Your task to perform on an android device: turn on bluetooth scan Image 0: 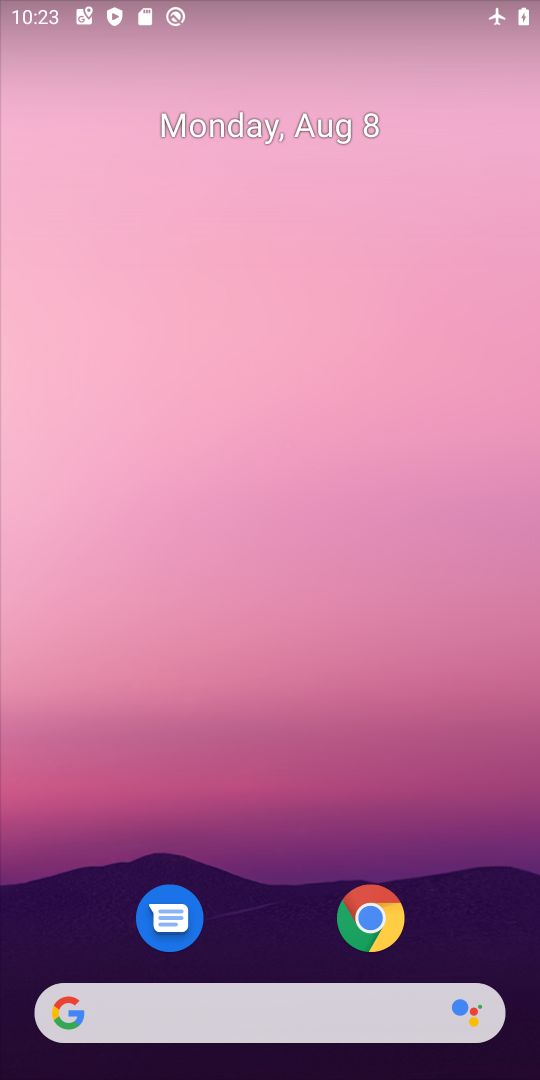
Step 0: drag from (272, 975) to (231, 251)
Your task to perform on an android device: turn on bluetooth scan Image 1: 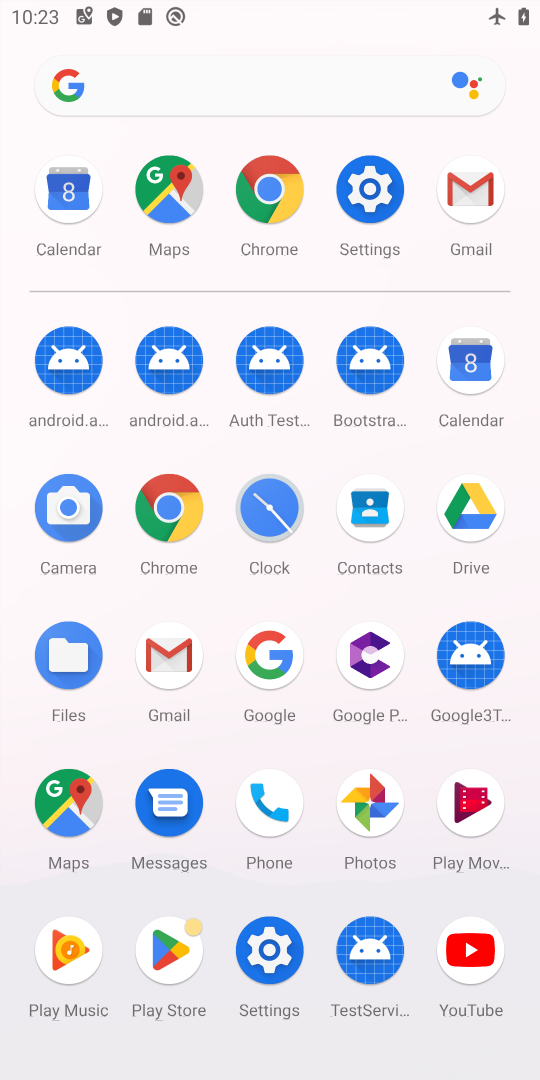
Step 1: click (386, 175)
Your task to perform on an android device: turn on bluetooth scan Image 2: 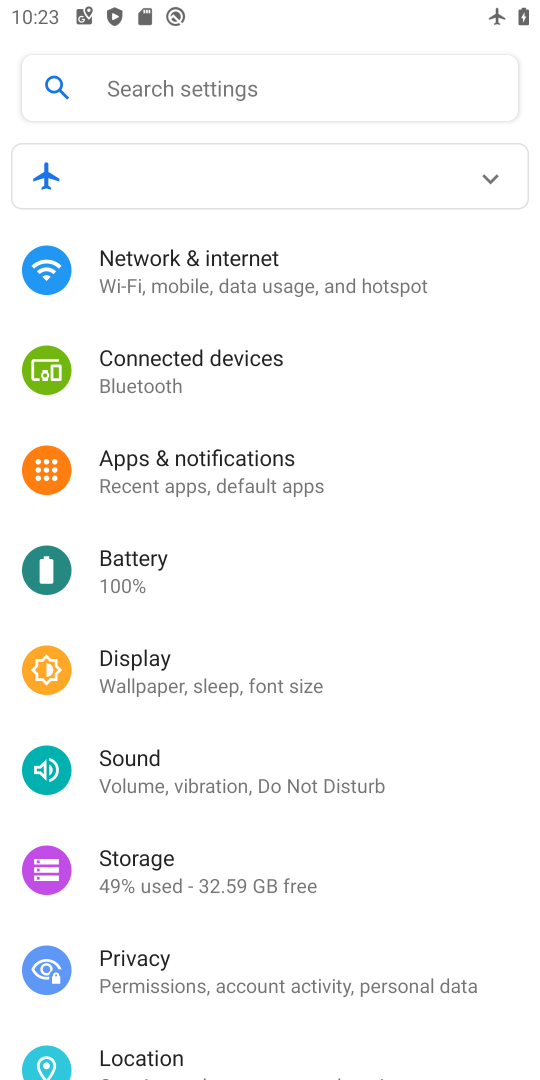
Step 2: click (130, 1055)
Your task to perform on an android device: turn on bluetooth scan Image 3: 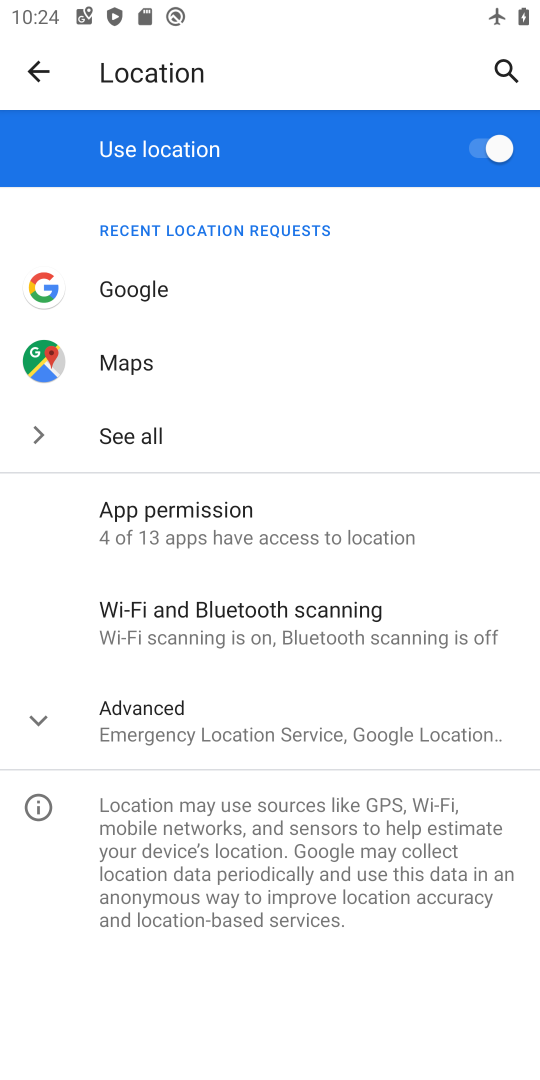
Step 3: click (100, 709)
Your task to perform on an android device: turn on bluetooth scan Image 4: 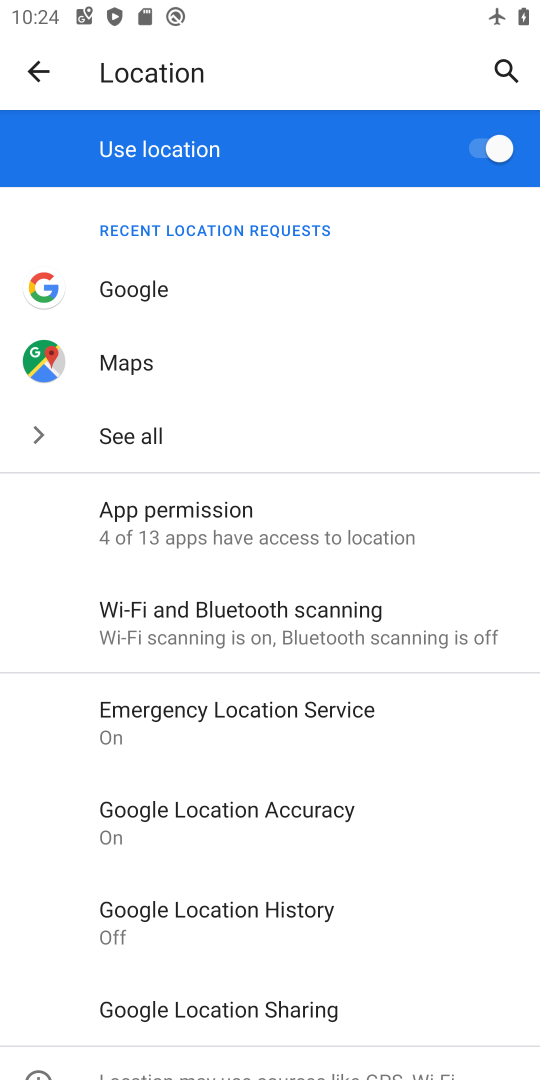
Step 4: drag from (191, 958) to (188, 728)
Your task to perform on an android device: turn on bluetooth scan Image 5: 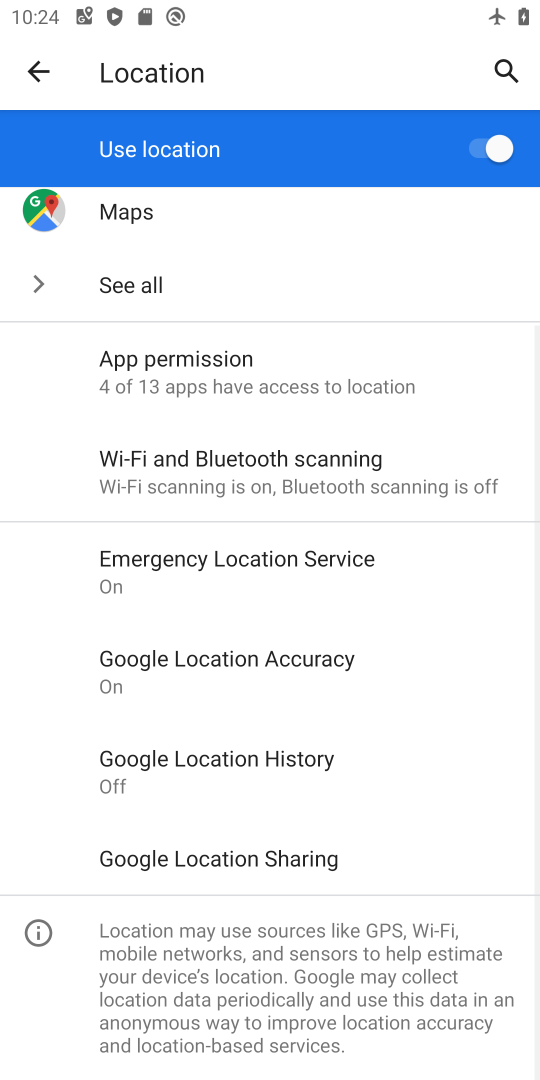
Step 5: click (235, 536)
Your task to perform on an android device: turn on bluetooth scan Image 6: 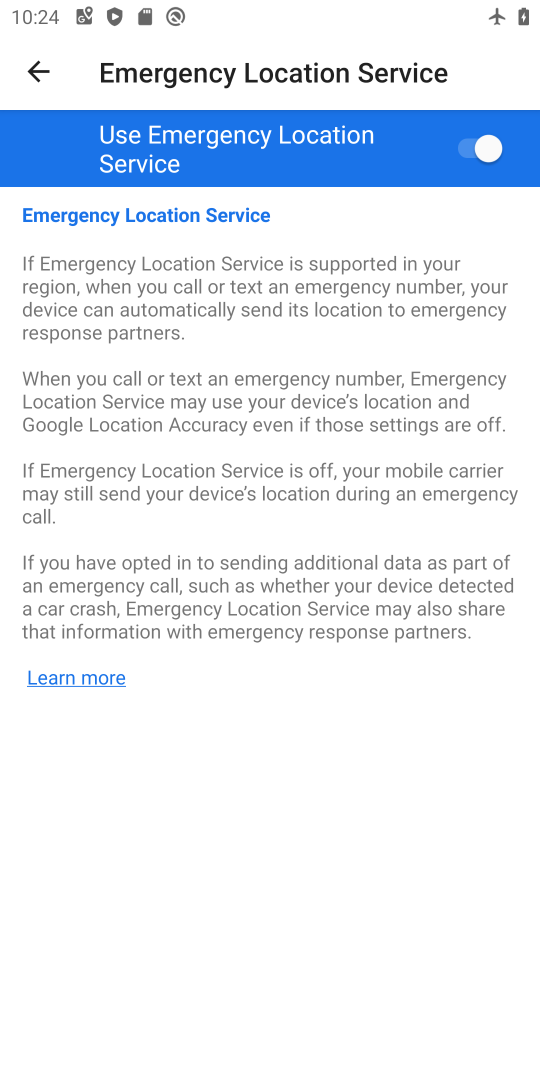
Step 6: click (32, 71)
Your task to perform on an android device: turn on bluetooth scan Image 7: 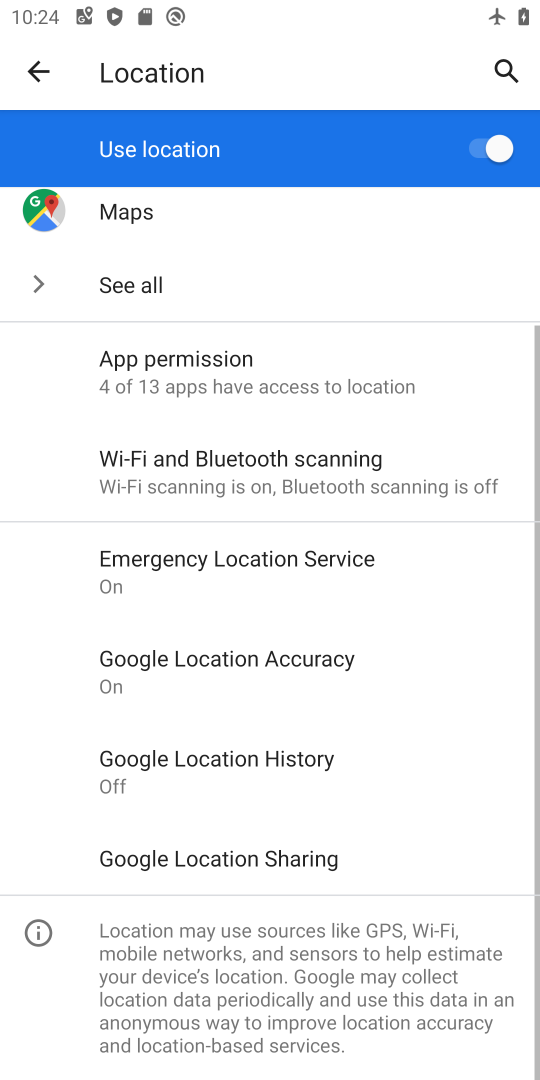
Step 7: click (203, 467)
Your task to perform on an android device: turn on bluetooth scan Image 8: 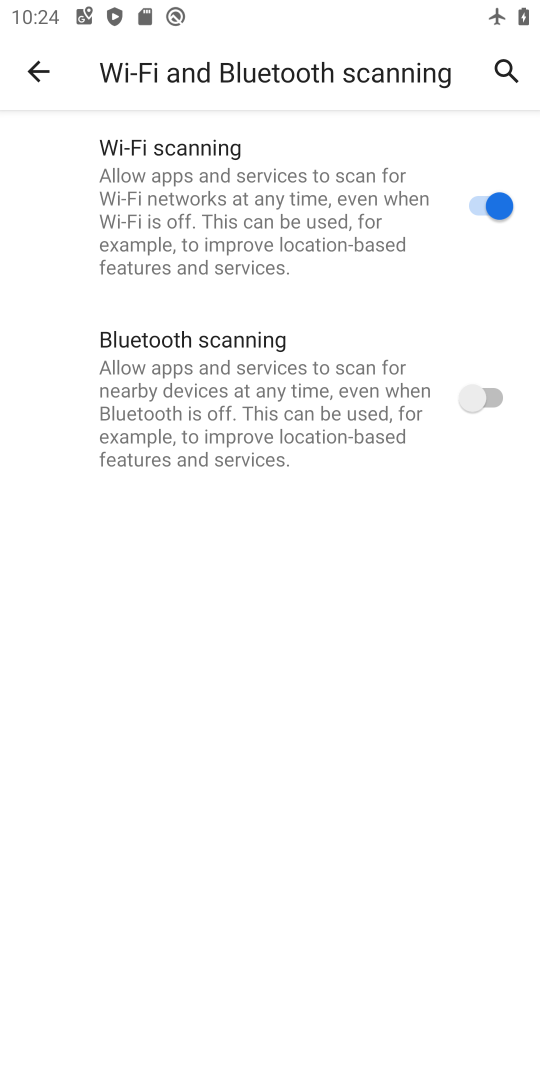
Step 8: click (452, 402)
Your task to perform on an android device: turn on bluetooth scan Image 9: 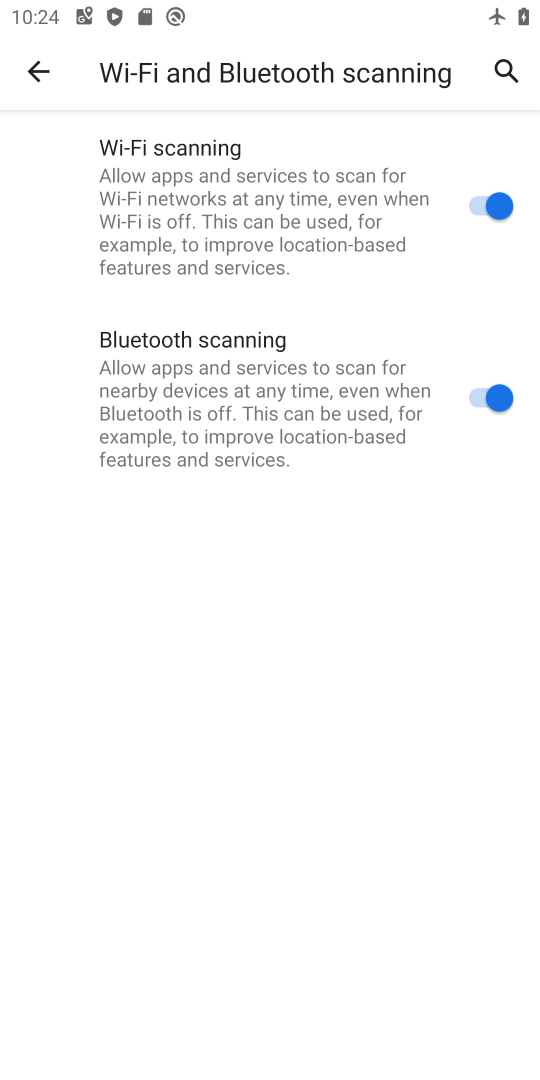
Step 9: task complete